Your task to perform on an android device: delete location history Image 0: 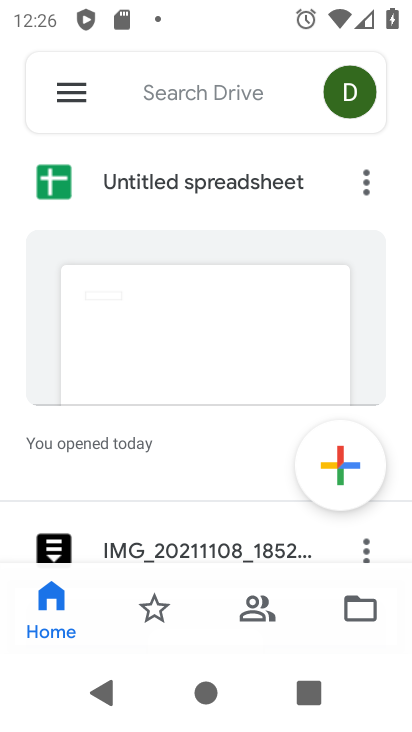
Step 0: press home button
Your task to perform on an android device: delete location history Image 1: 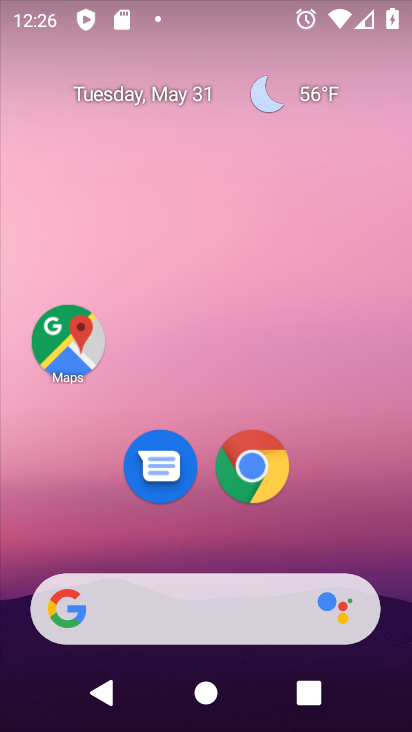
Step 1: drag from (199, 620) to (176, 173)
Your task to perform on an android device: delete location history Image 2: 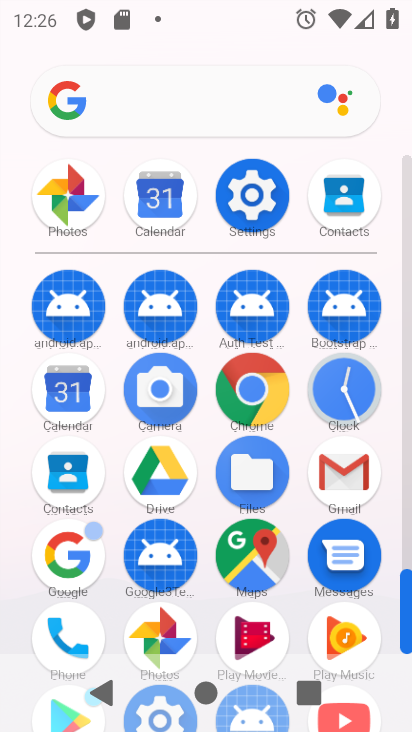
Step 2: click (237, 554)
Your task to perform on an android device: delete location history Image 3: 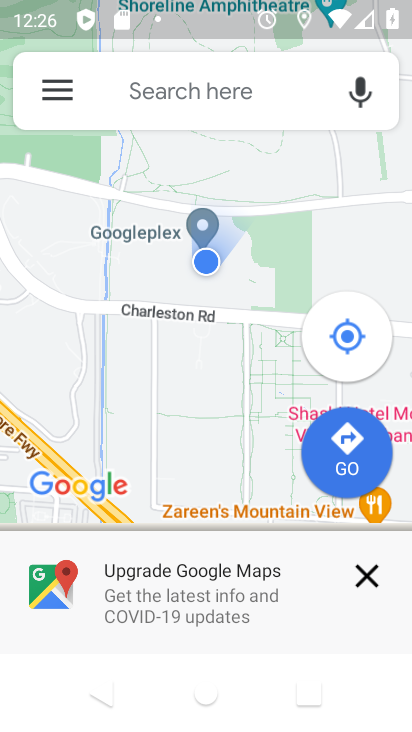
Step 3: click (68, 85)
Your task to perform on an android device: delete location history Image 4: 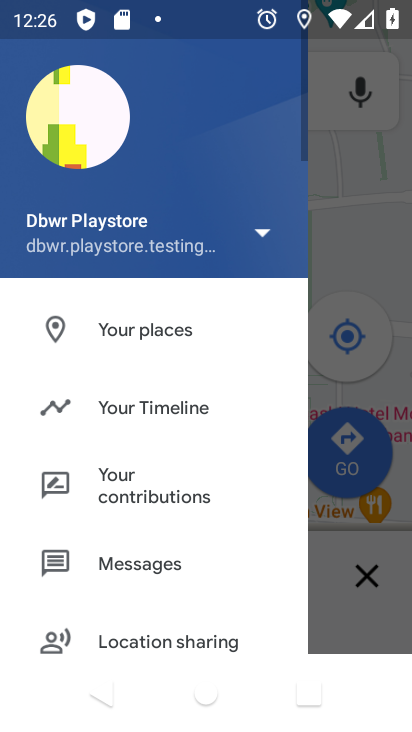
Step 4: drag from (163, 569) to (134, 325)
Your task to perform on an android device: delete location history Image 5: 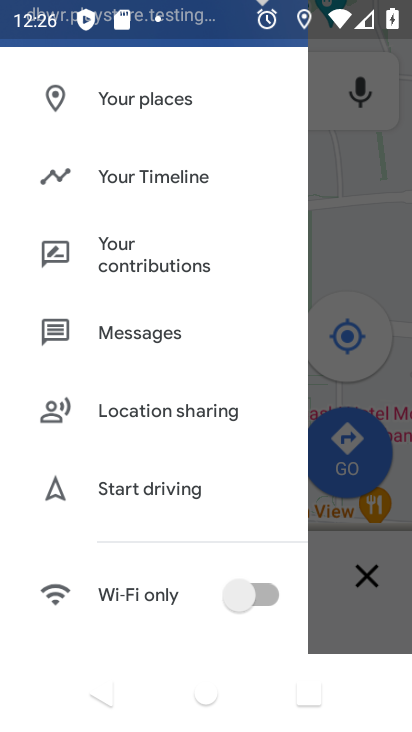
Step 5: click (115, 178)
Your task to perform on an android device: delete location history Image 6: 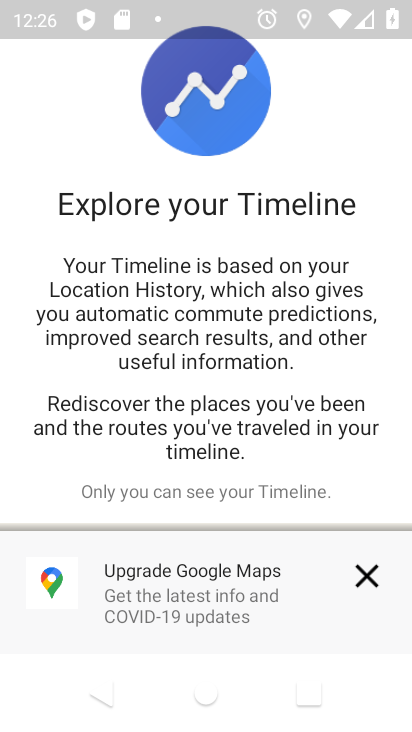
Step 6: click (358, 589)
Your task to perform on an android device: delete location history Image 7: 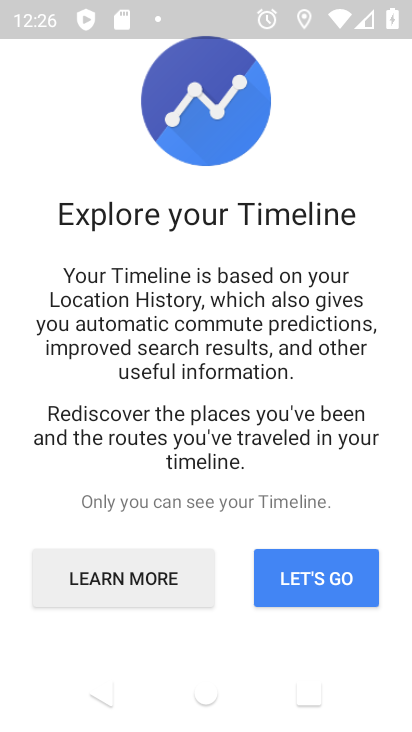
Step 7: click (294, 582)
Your task to perform on an android device: delete location history Image 8: 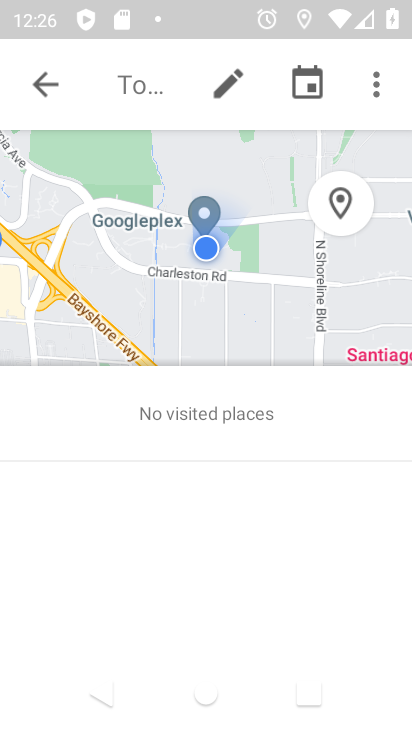
Step 8: click (373, 80)
Your task to perform on an android device: delete location history Image 9: 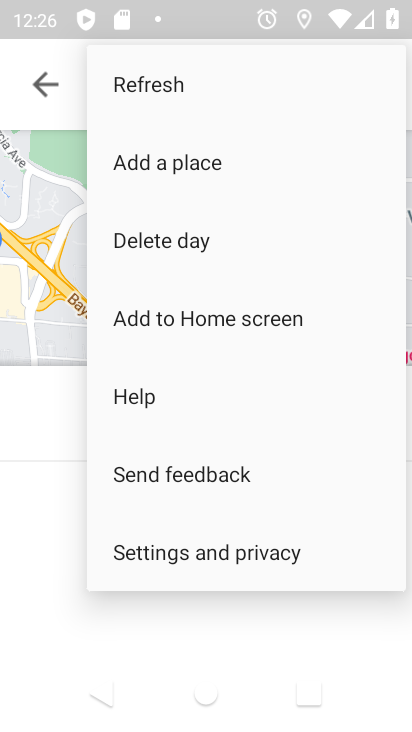
Step 9: click (177, 549)
Your task to perform on an android device: delete location history Image 10: 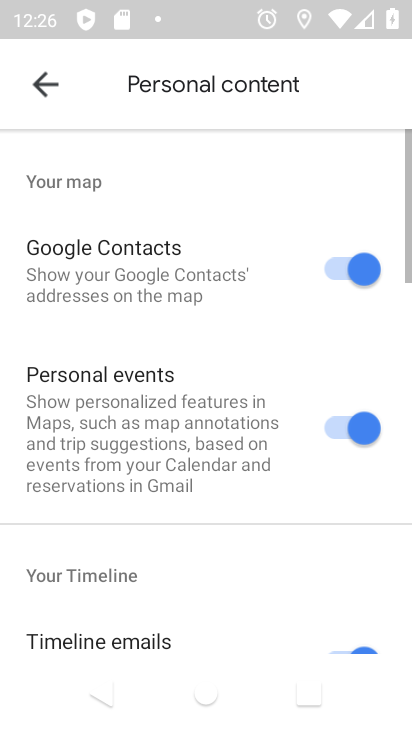
Step 10: drag from (199, 546) to (193, 45)
Your task to perform on an android device: delete location history Image 11: 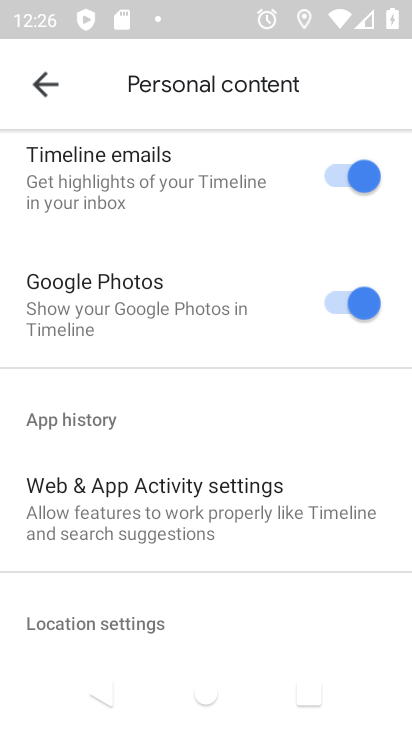
Step 11: drag from (178, 608) to (190, 119)
Your task to perform on an android device: delete location history Image 12: 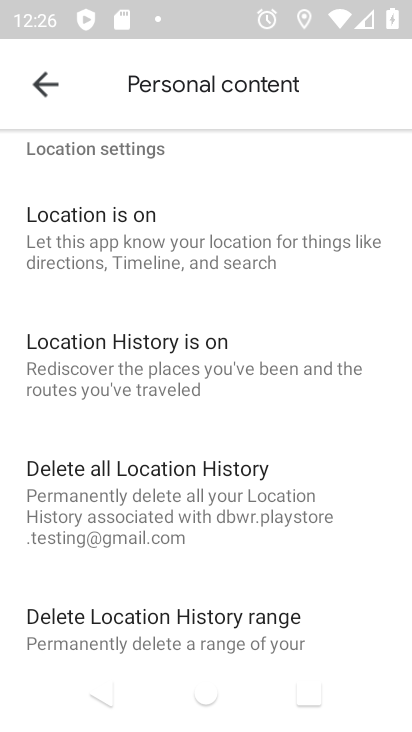
Step 12: click (181, 492)
Your task to perform on an android device: delete location history Image 13: 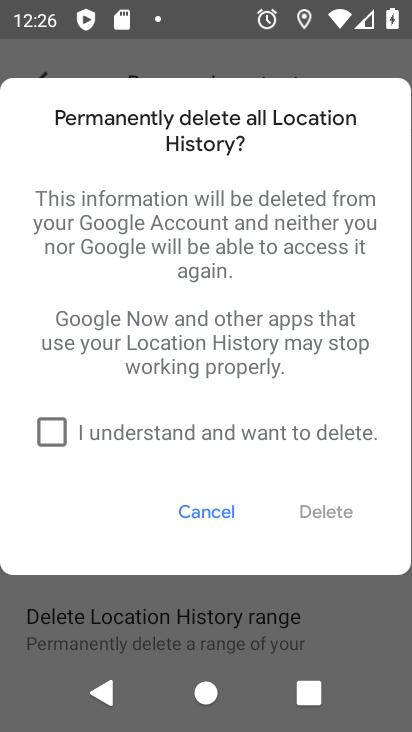
Step 13: click (52, 438)
Your task to perform on an android device: delete location history Image 14: 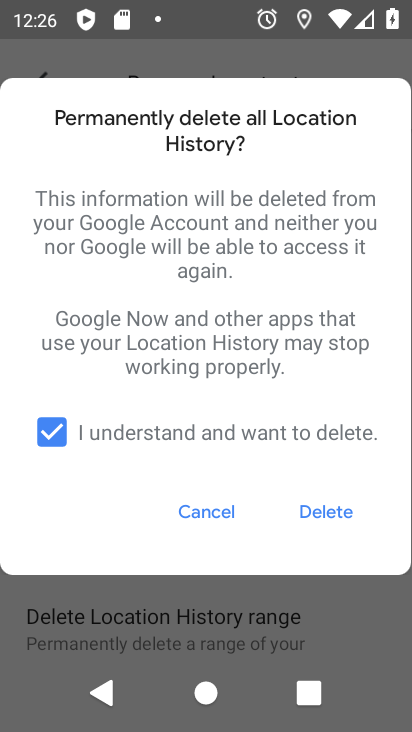
Step 14: click (342, 514)
Your task to perform on an android device: delete location history Image 15: 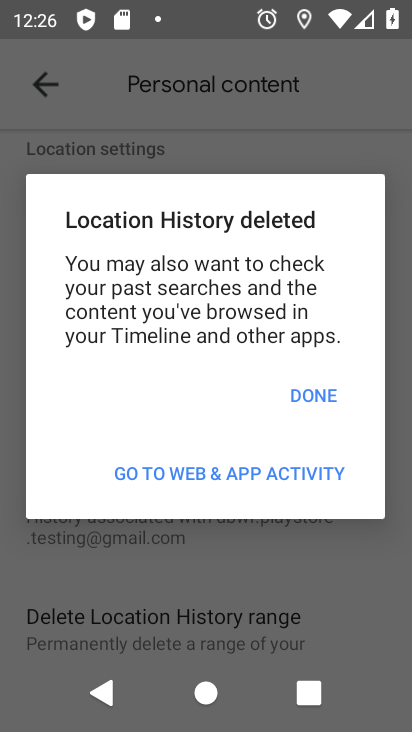
Step 15: click (316, 396)
Your task to perform on an android device: delete location history Image 16: 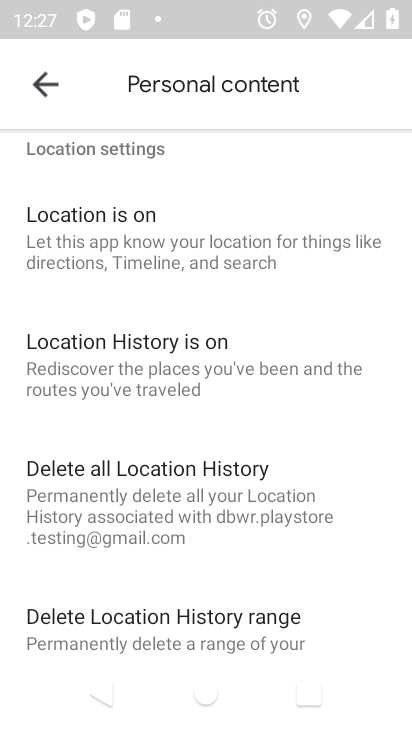
Step 16: task complete